Your task to perform on an android device: Search for "logitech g933" on ebay, select the first entry, add it to the cart, then select checkout. Image 0: 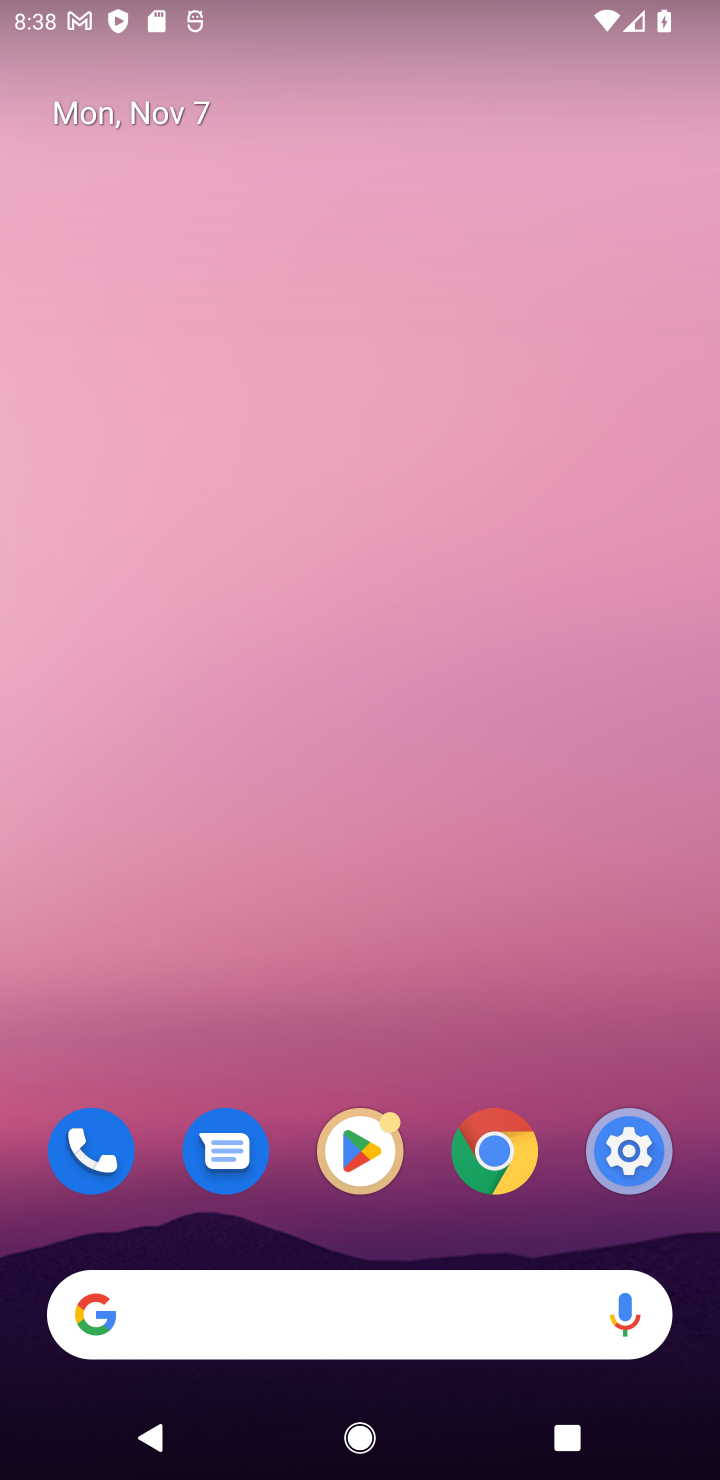
Step 0: click (485, 1160)
Your task to perform on an android device: Search for "logitech g933" on ebay, select the first entry, add it to the cart, then select checkout. Image 1: 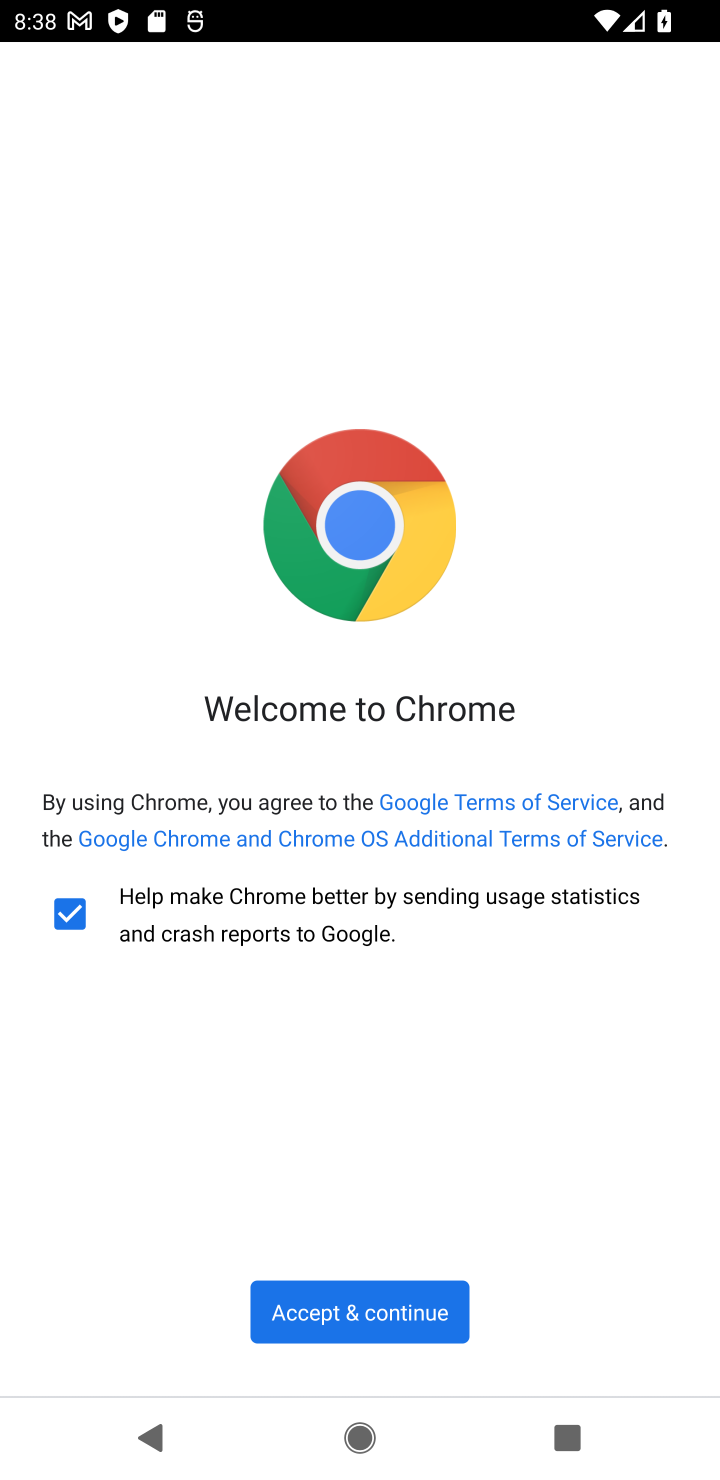
Step 1: click (352, 1318)
Your task to perform on an android device: Search for "logitech g933" on ebay, select the first entry, add it to the cart, then select checkout. Image 2: 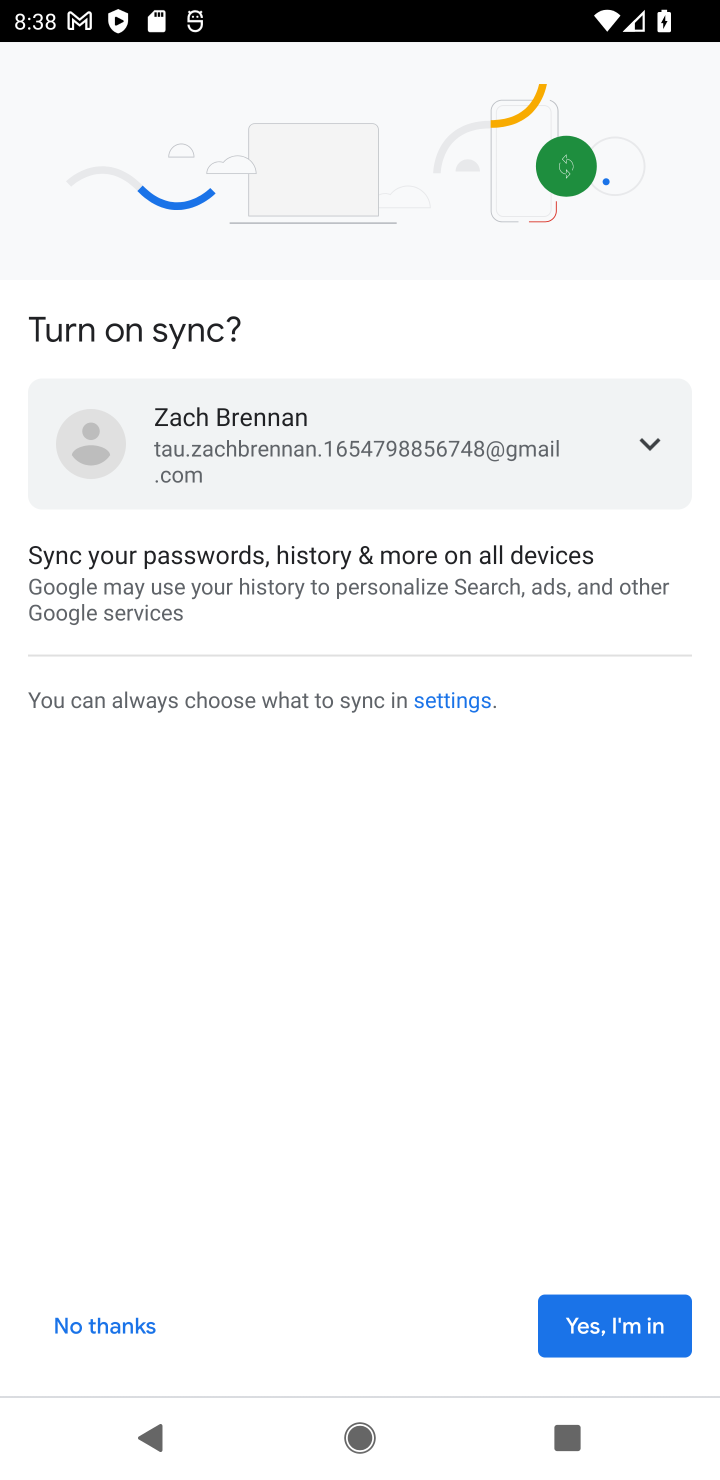
Step 2: click (558, 1329)
Your task to perform on an android device: Search for "logitech g933" on ebay, select the first entry, add it to the cart, then select checkout. Image 3: 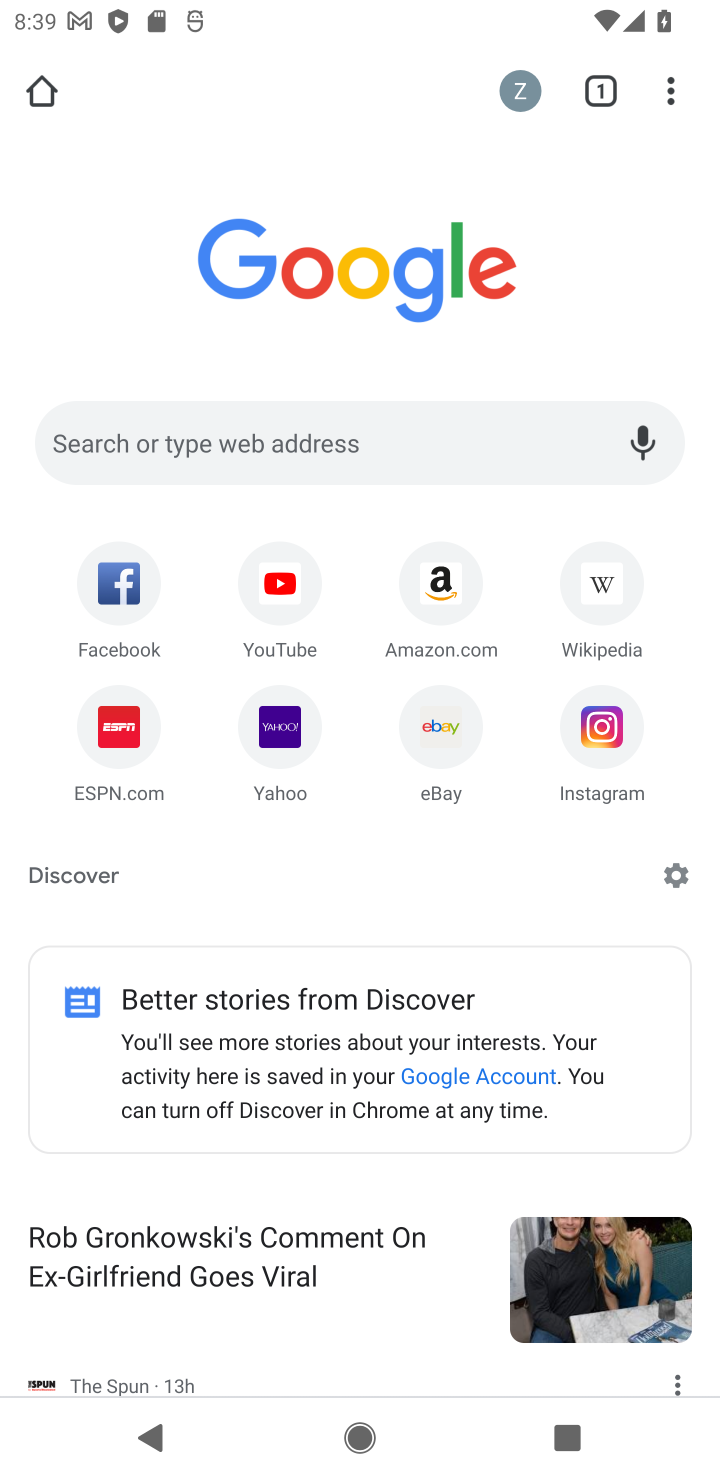
Step 3: click (271, 450)
Your task to perform on an android device: Search for "logitech g933" on ebay, select the first entry, add it to the cart, then select checkout. Image 4: 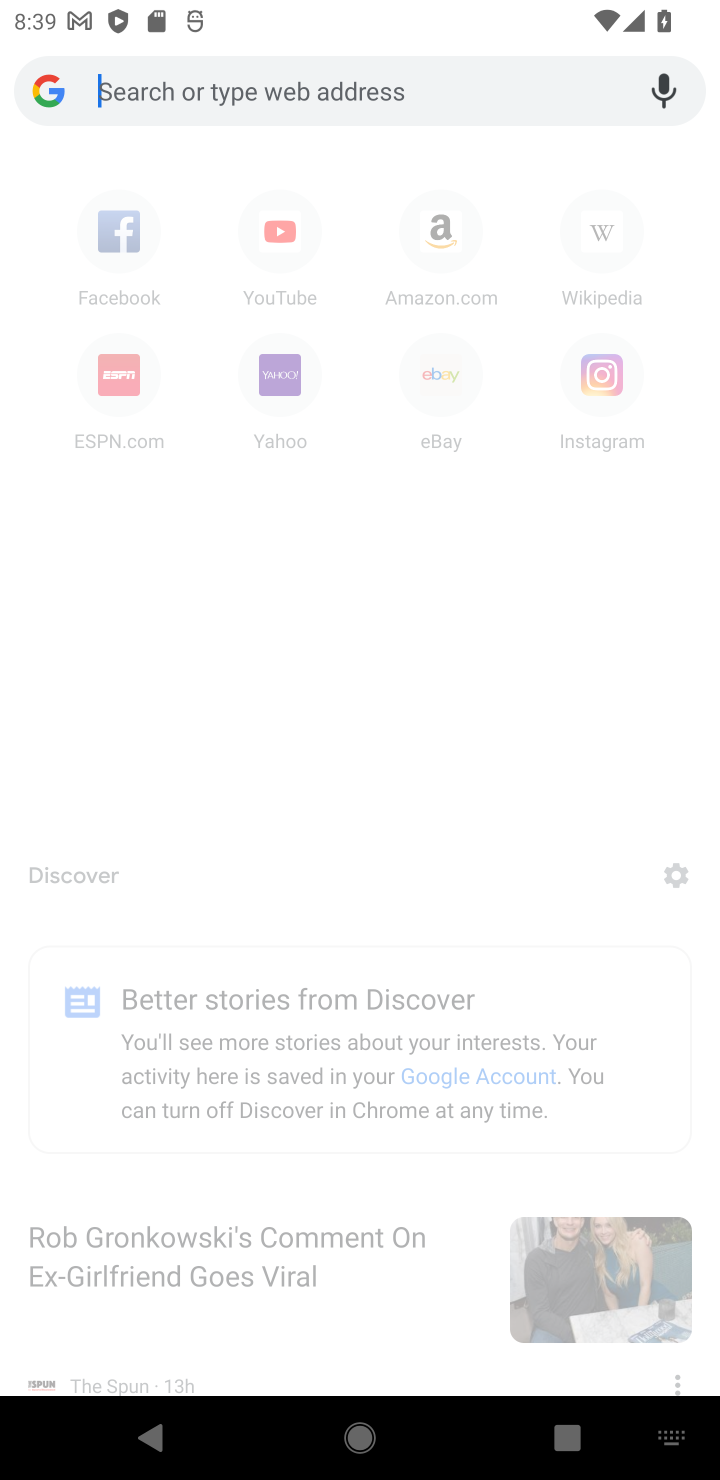
Step 4: click (224, 83)
Your task to perform on an android device: Search for "logitech g933" on ebay, select the first entry, add it to the cart, then select checkout. Image 5: 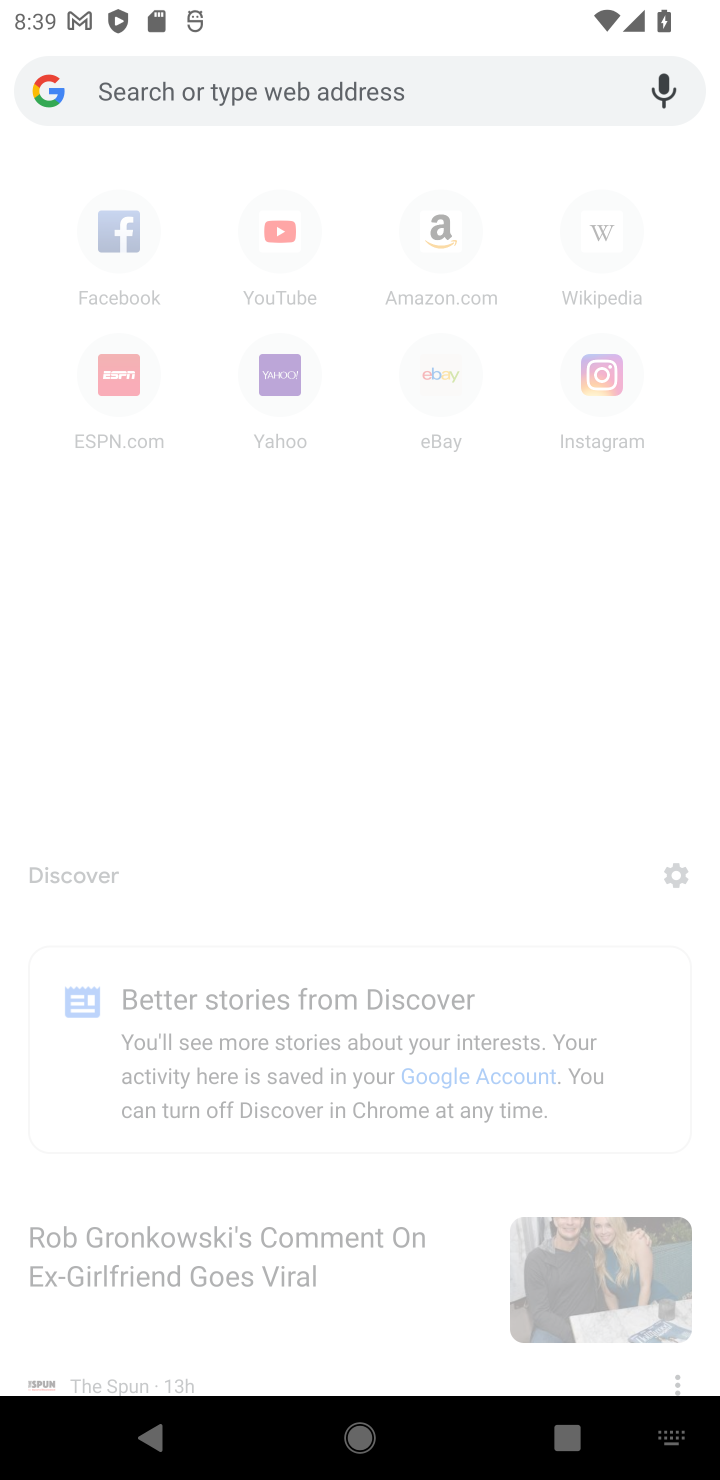
Step 5: type " ebay"
Your task to perform on an android device: Search for "logitech g933" on ebay, select the first entry, add it to the cart, then select checkout. Image 6: 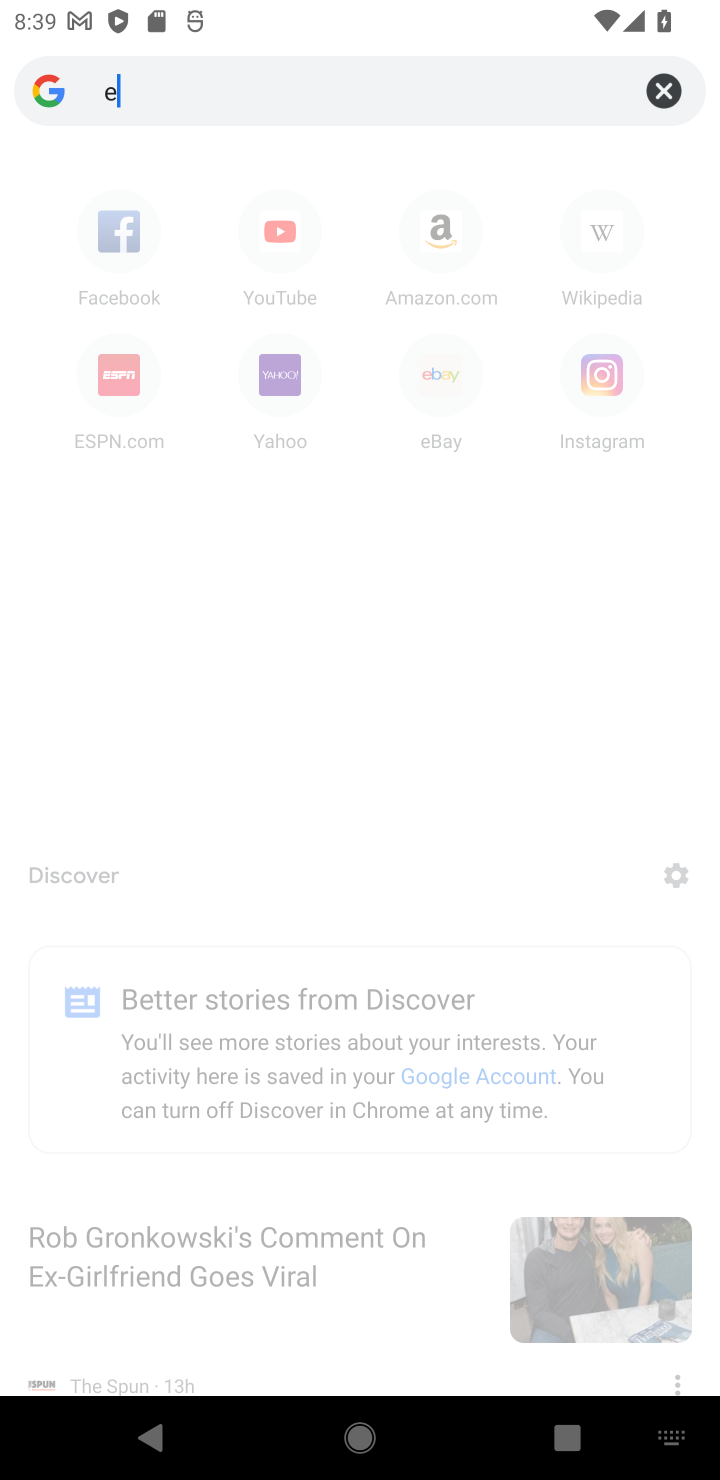
Step 6: press enter
Your task to perform on an android device: Search for "logitech g933" on ebay, select the first entry, add it to the cart, then select checkout. Image 7: 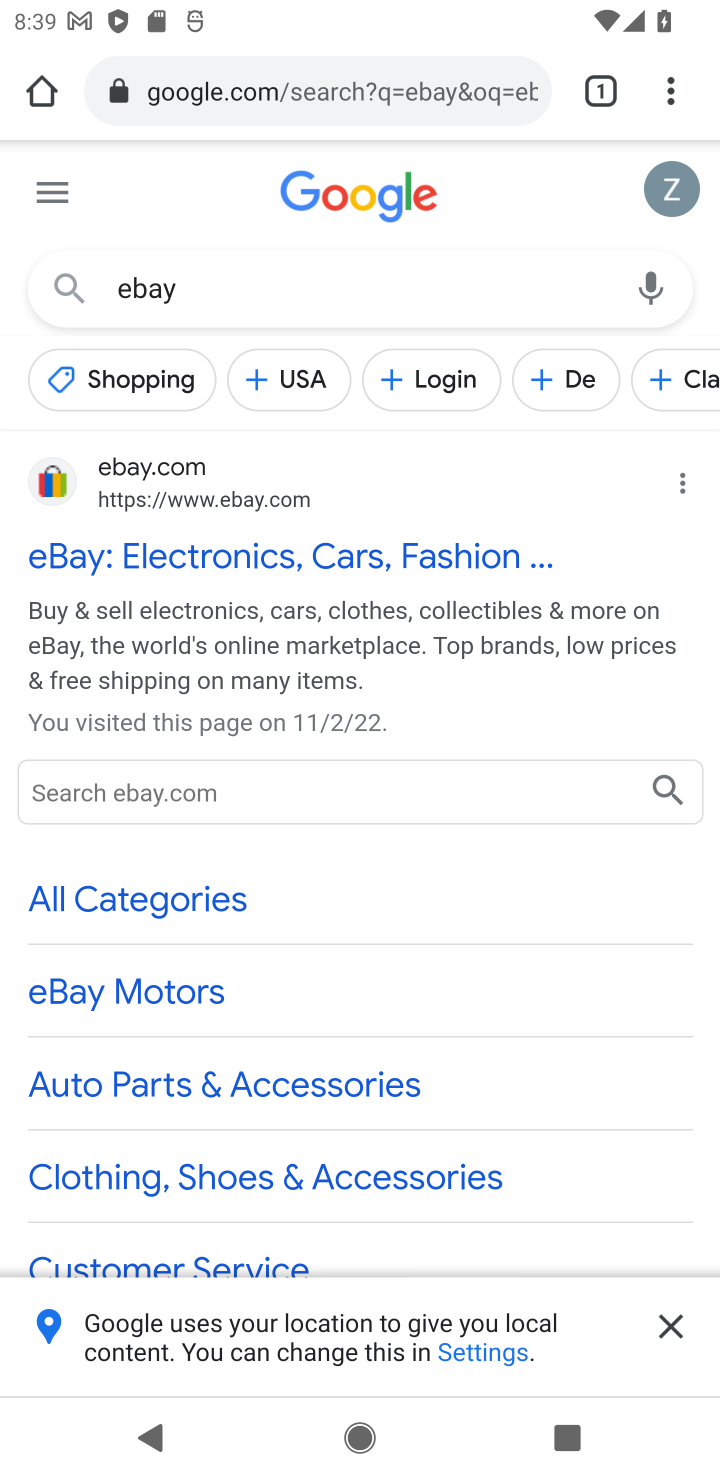
Step 7: click (252, 566)
Your task to perform on an android device: Search for "logitech g933" on ebay, select the first entry, add it to the cart, then select checkout. Image 8: 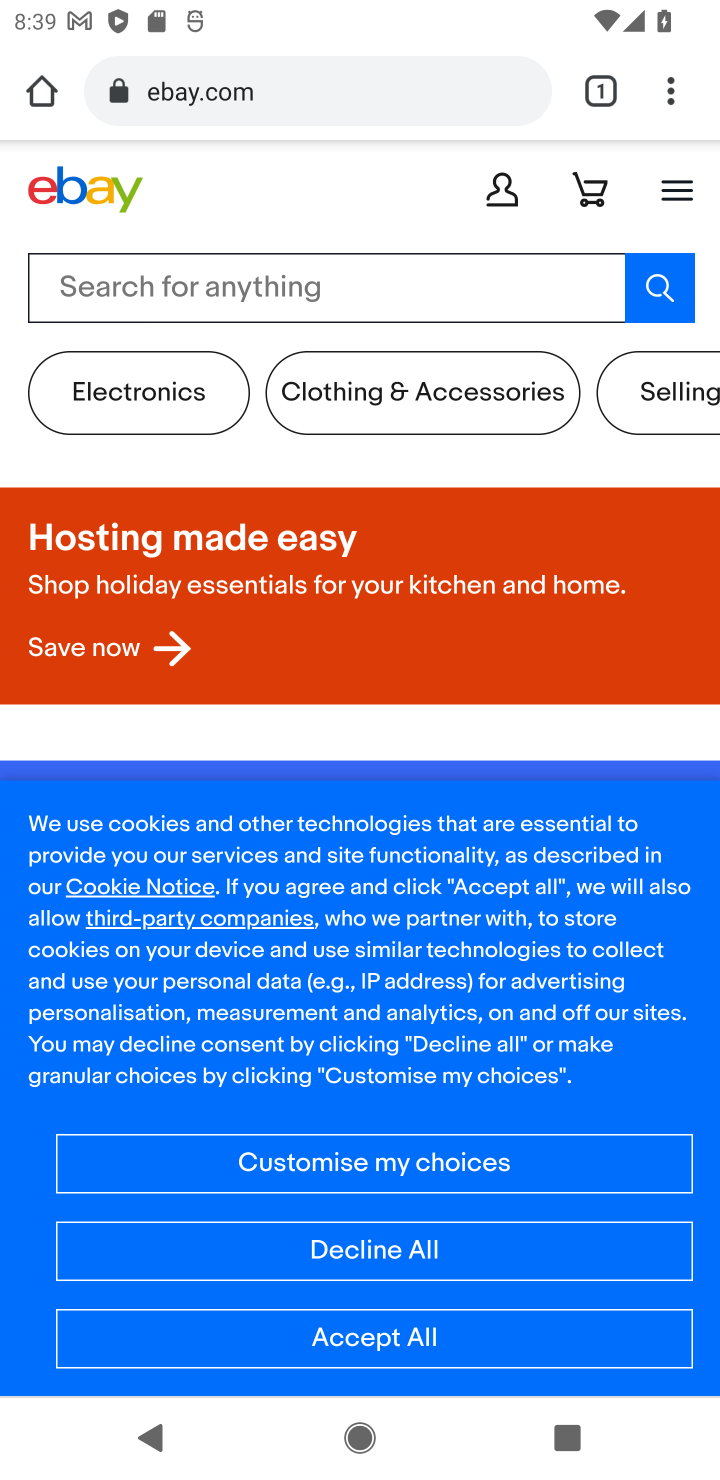
Step 8: click (270, 279)
Your task to perform on an android device: Search for "logitech g933" on ebay, select the first entry, add it to the cart, then select checkout. Image 9: 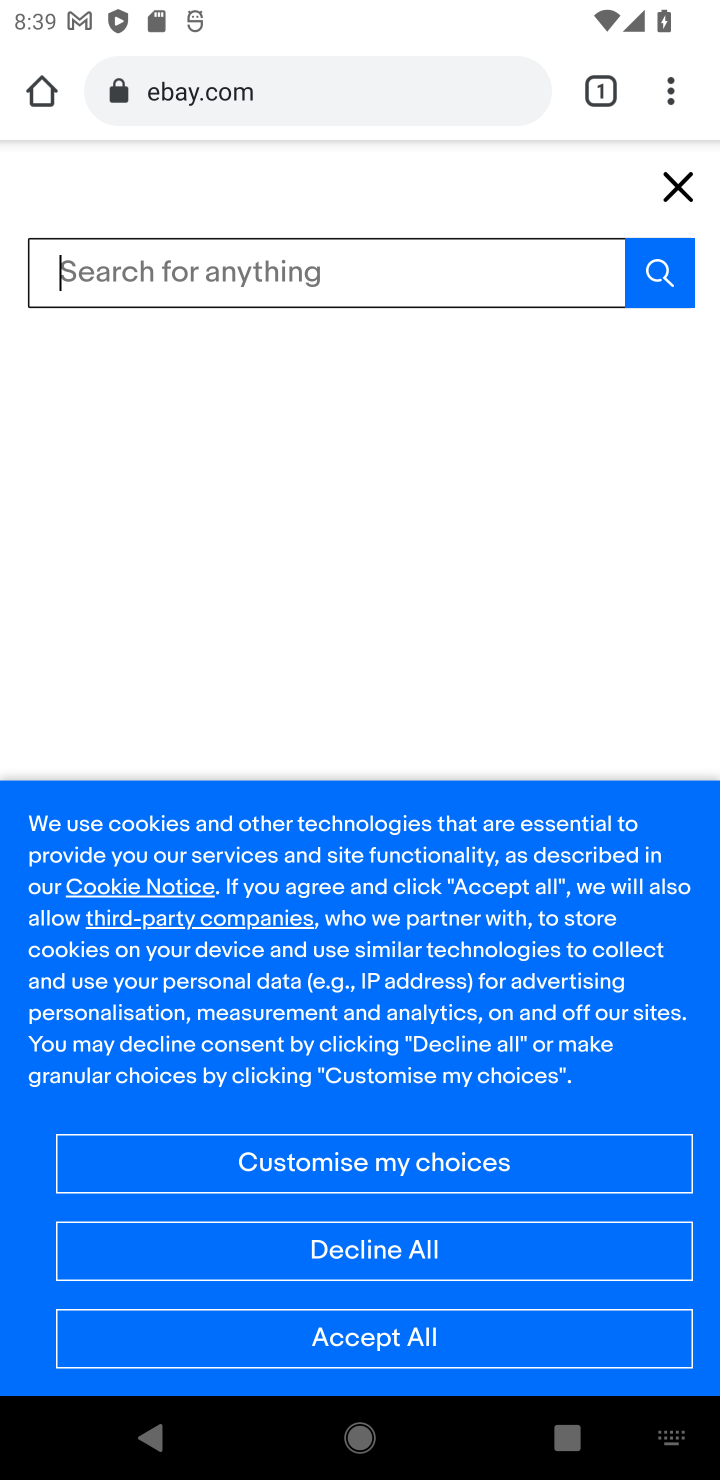
Step 9: click (435, 1351)
Your task to perform on an android device: Search for "logitech g933" on ebay, select the first entry, add it to the cart, then select checkout. Image 10: 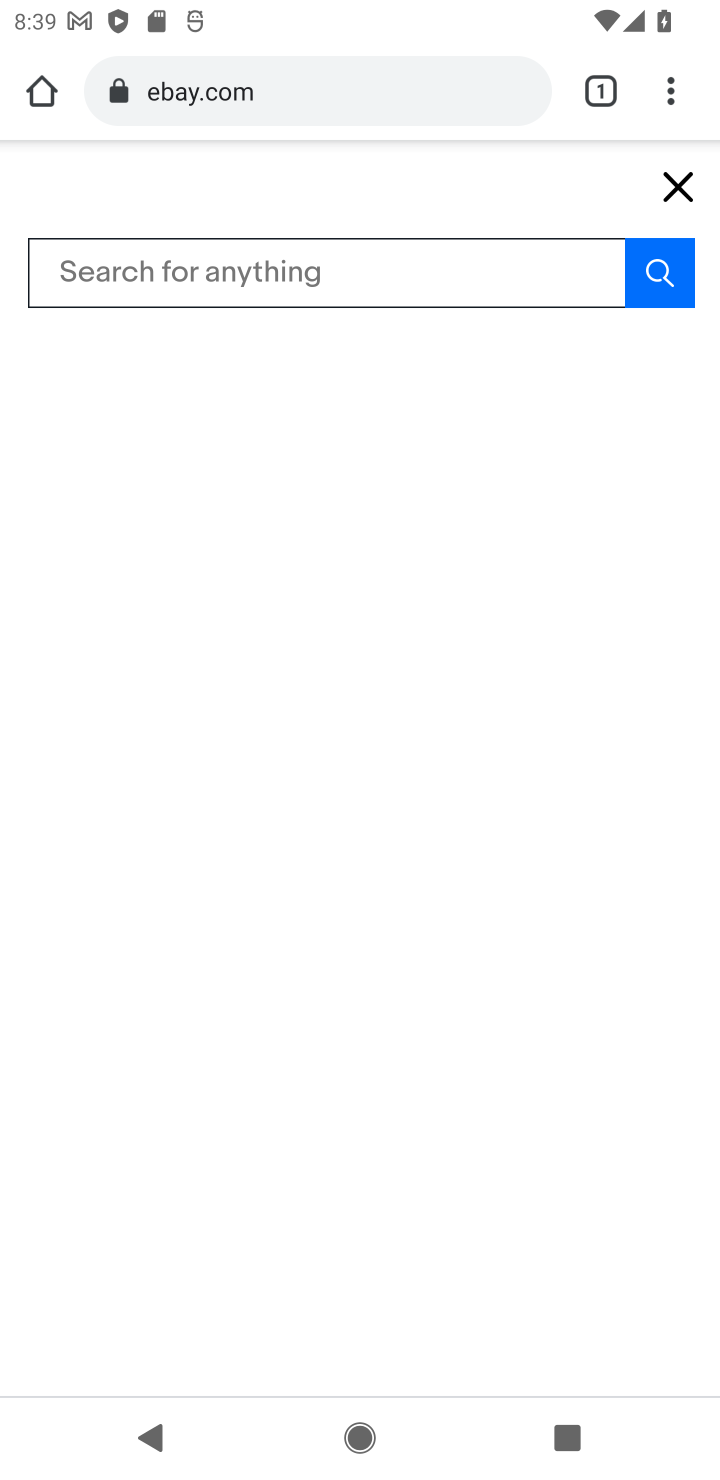
Step 10: click (260, 258)
Your task to perform on an android device: Search for "logitech g933" on ebay, select the first entry, add it to the cart, then select checkout. Image 11: 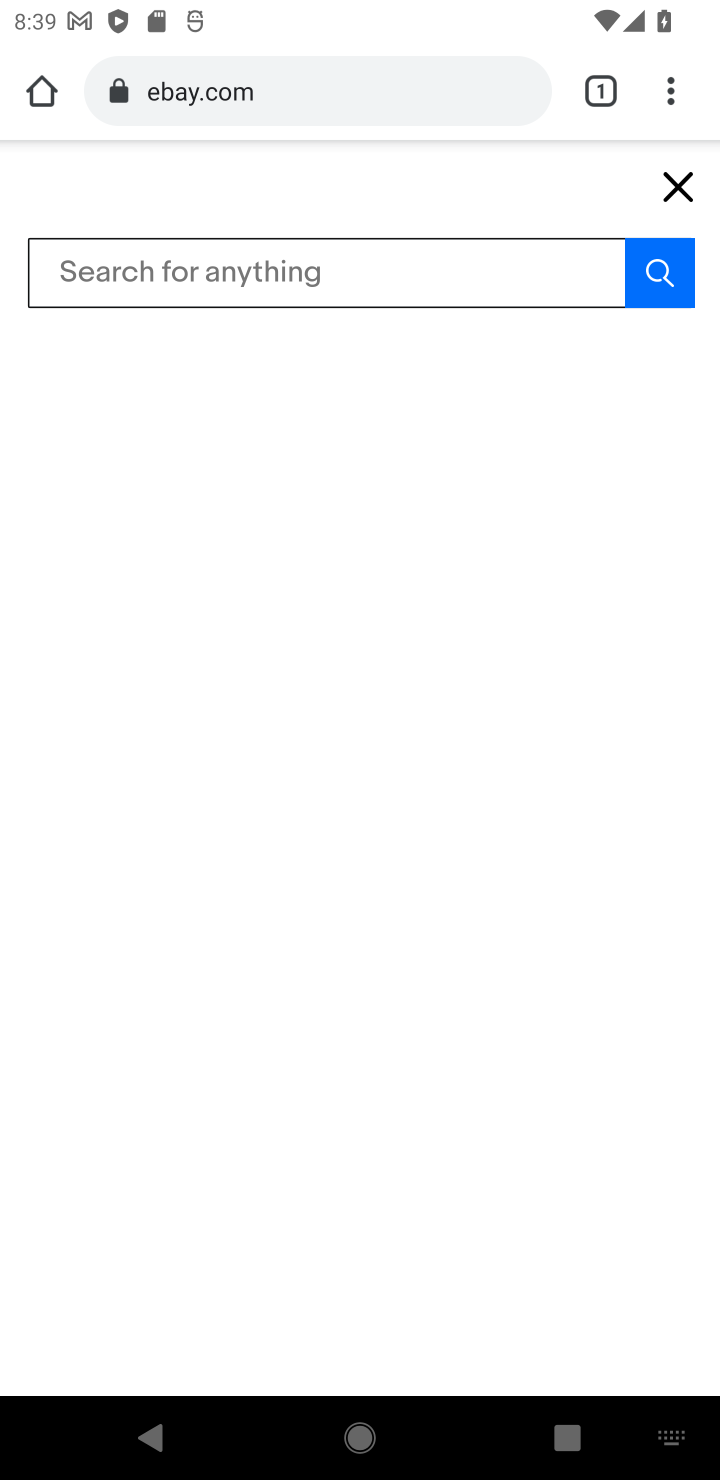
Step 11: type "logitech g933"
Your task to perform on an android device: Search for "logitech g933" on ebay, select the first entry, add it to the cart, then select checkout. Image 12: 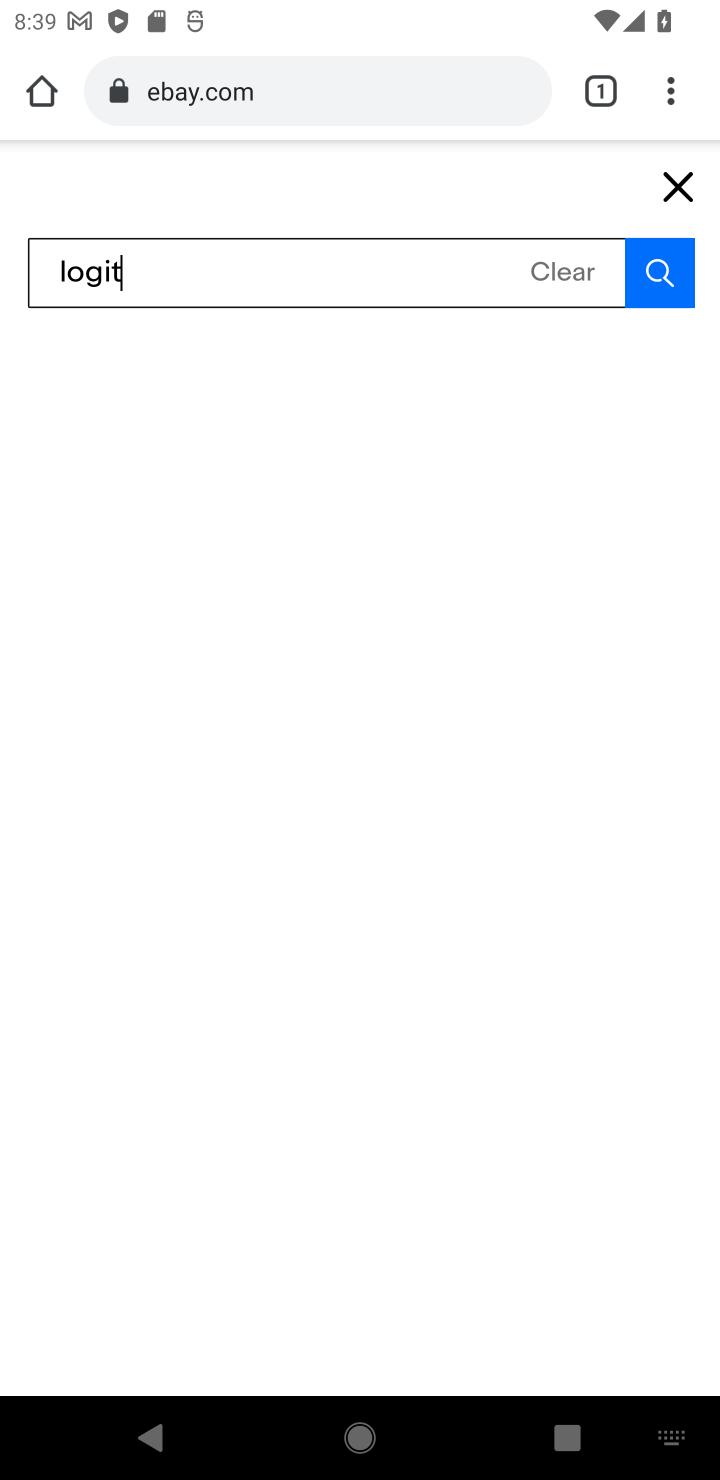
Step 12: press enter
Your task to perform on an android device: Search for "logitech g933" on ebay, select the first entry, add it to the cart, then select checkout. Image 13: 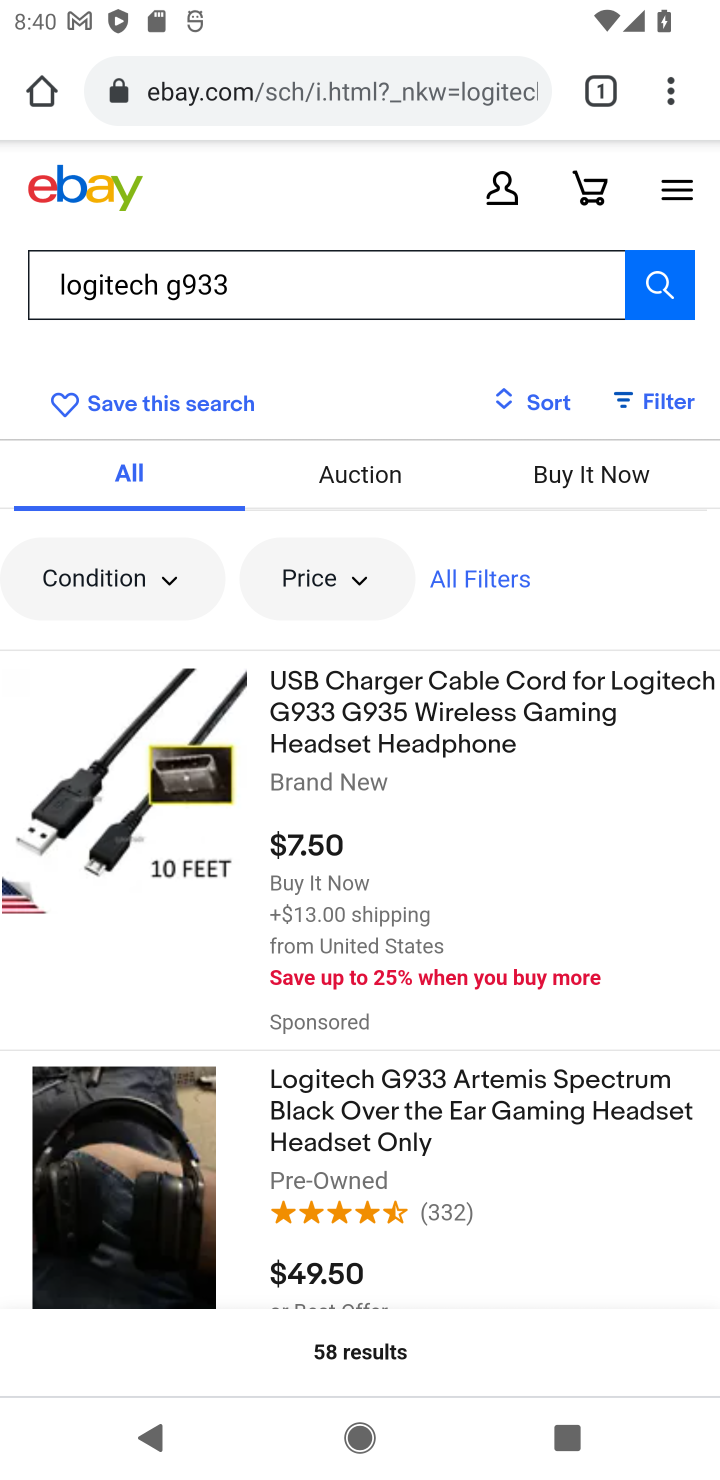
Step 13: click (384, 737)
Your task to perform on an android device: Search for "logitech g933" on ebay, select the first entry, add it to the cart, then select checkout. Image 14: 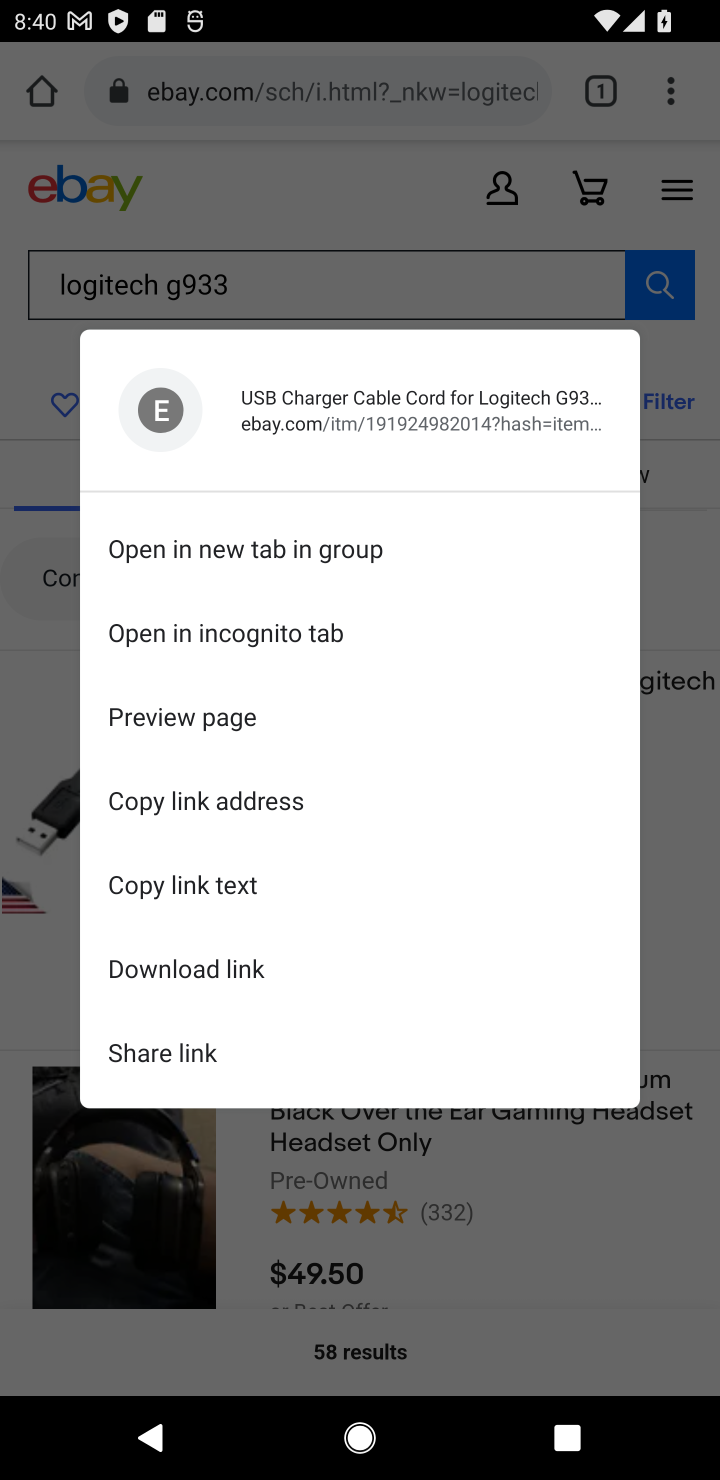
Step 14: click (674, 761)
Your task to perform on an android device: Search for "logitech g933" on ebay, select the first entry, add it to the cart, then select checkout. Image 15: 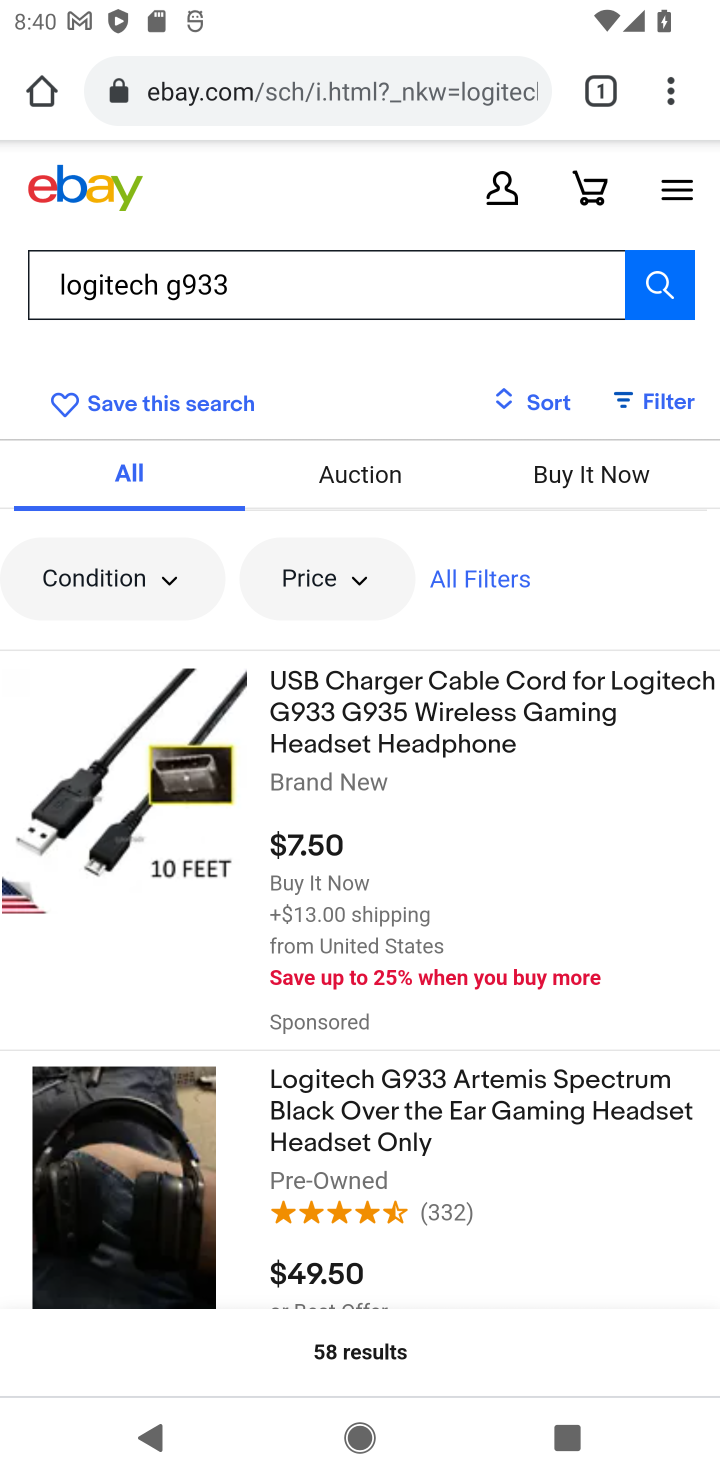
Step 15: click (410, 674)
Your task to perform on an android device: Search for "logitech g933" on ebay, select the first entry, add it to the cart, then select checkout. Image 16: 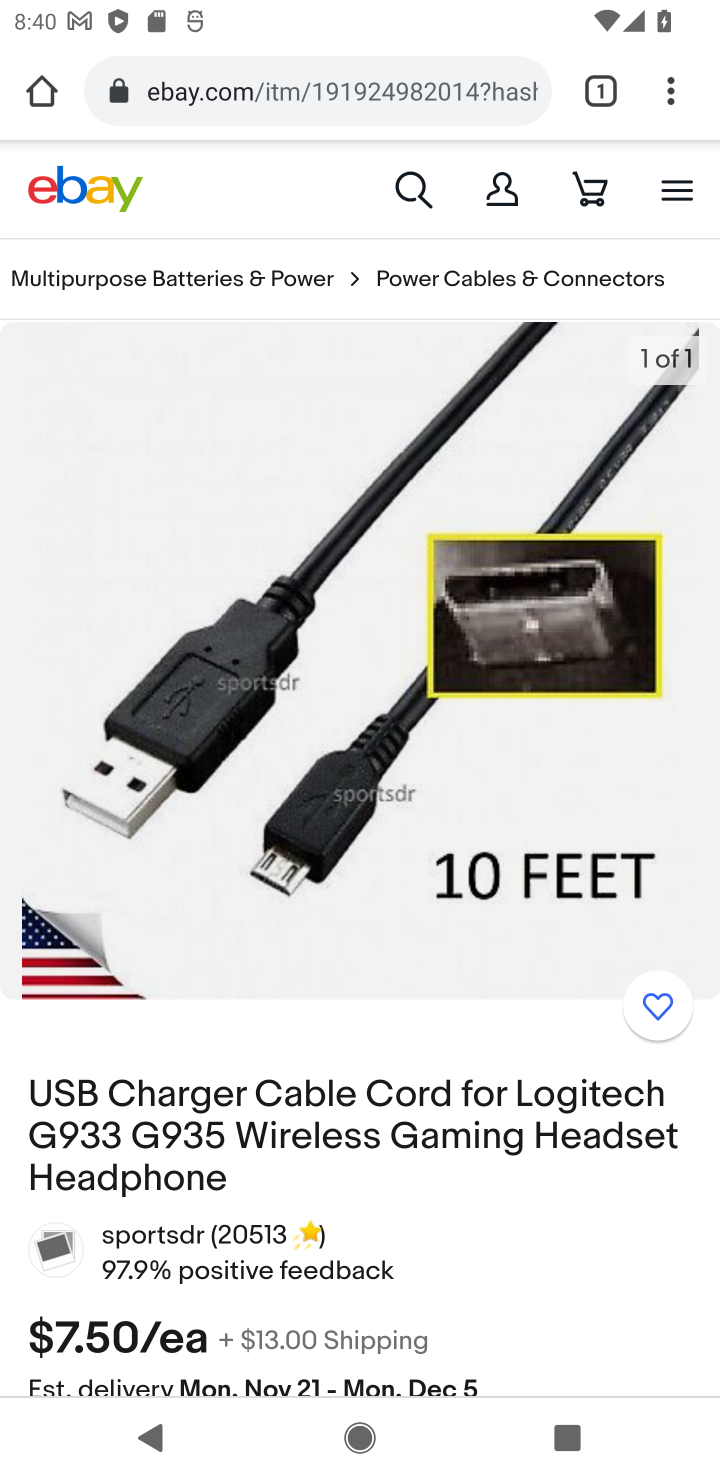
Step 16: drag from (323, 1211) to (719, 460)
Your task to perform on an android device: Search for "logitech g933" on ebay, select the first entry, add it to the cart, then select checkout. Image 17: 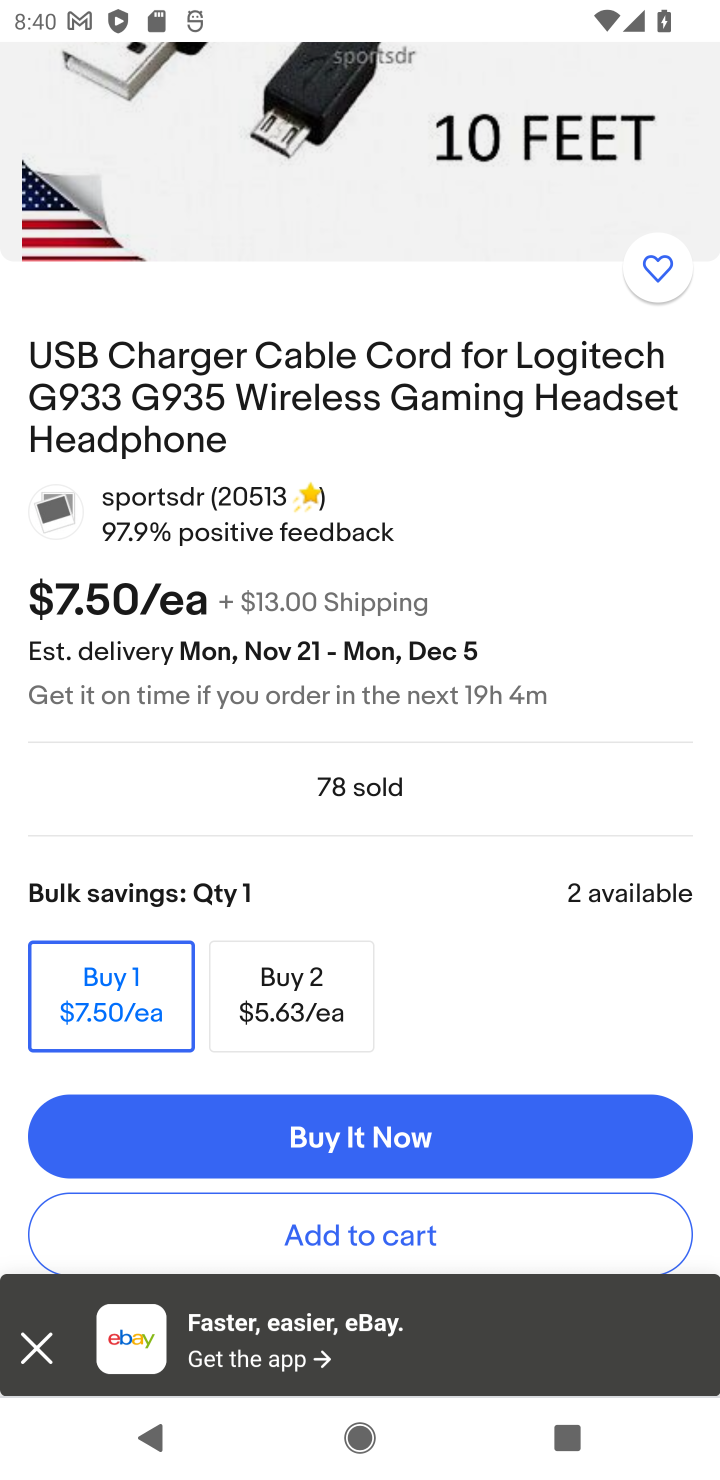
Step 17: click (346, 1230)
Your task to perform on an android device: Search for "logitech g933" on ebay, select the first entry, add it to the cart, then select checkout. Image 18: 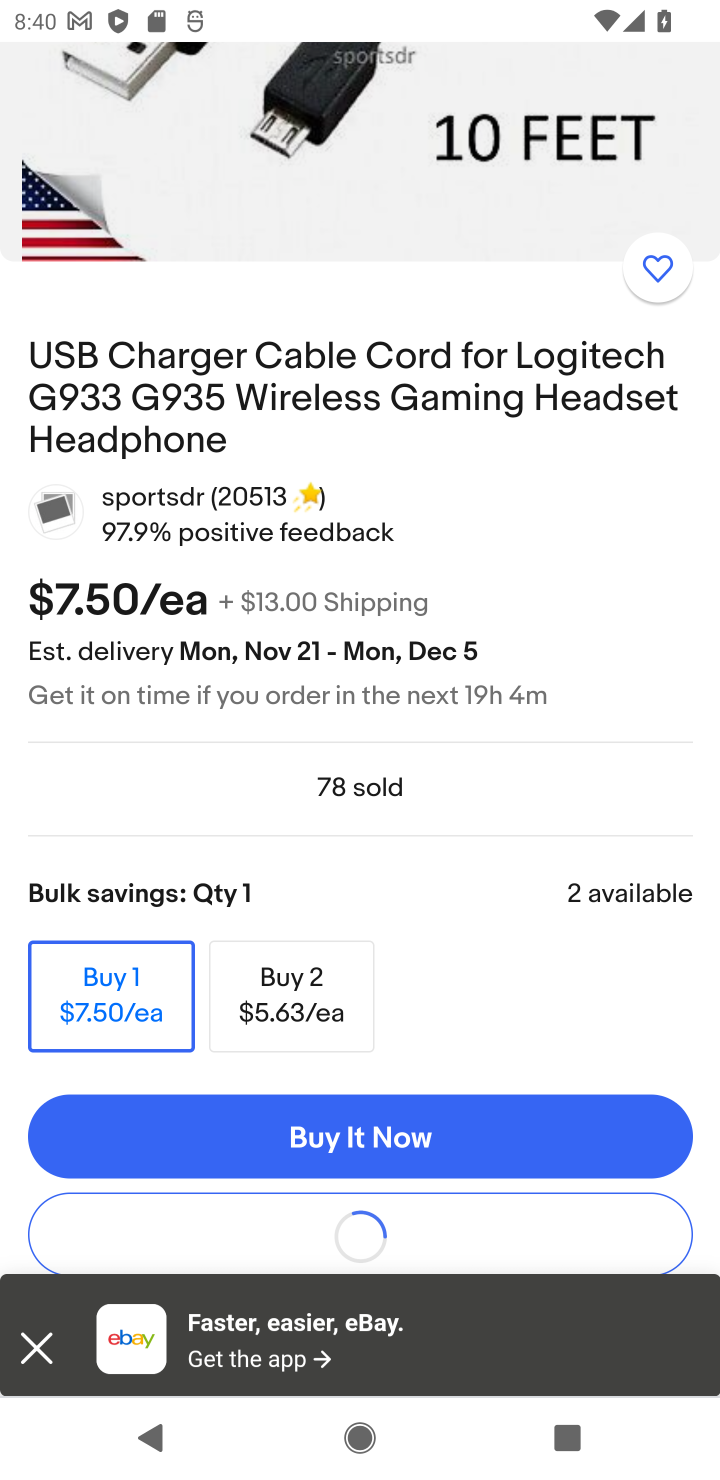
Step 18: drag from (452, 1039) to (717, 354)
Your task to perform on an android device: Search for "logitech g933" on ebay, select the first entry, add it to the cart, then select checkout. Image 19: 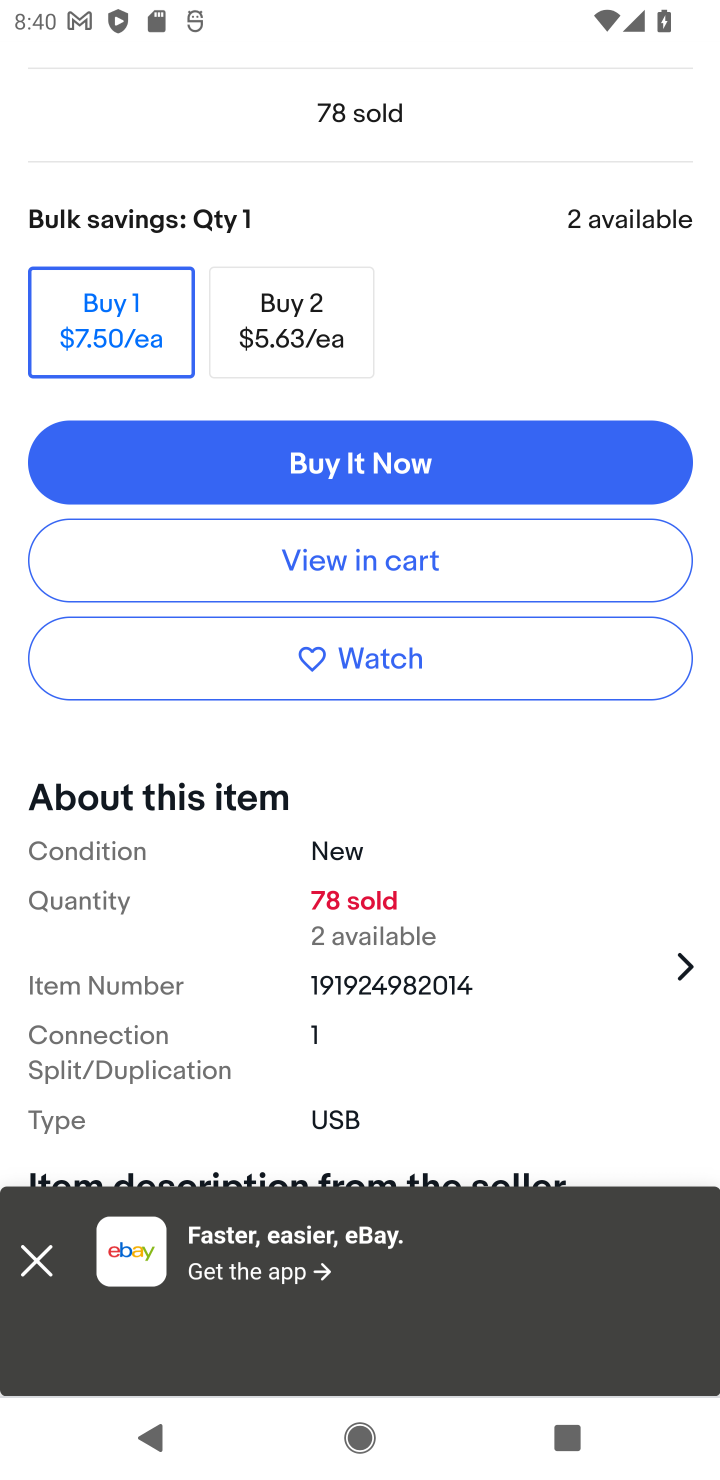
Step 19: click (366, 559)
Your task to perform on an android device: Search for "logitech g933" on ebay, select the first entry, add it to the cart, then select checkout. Image 20: 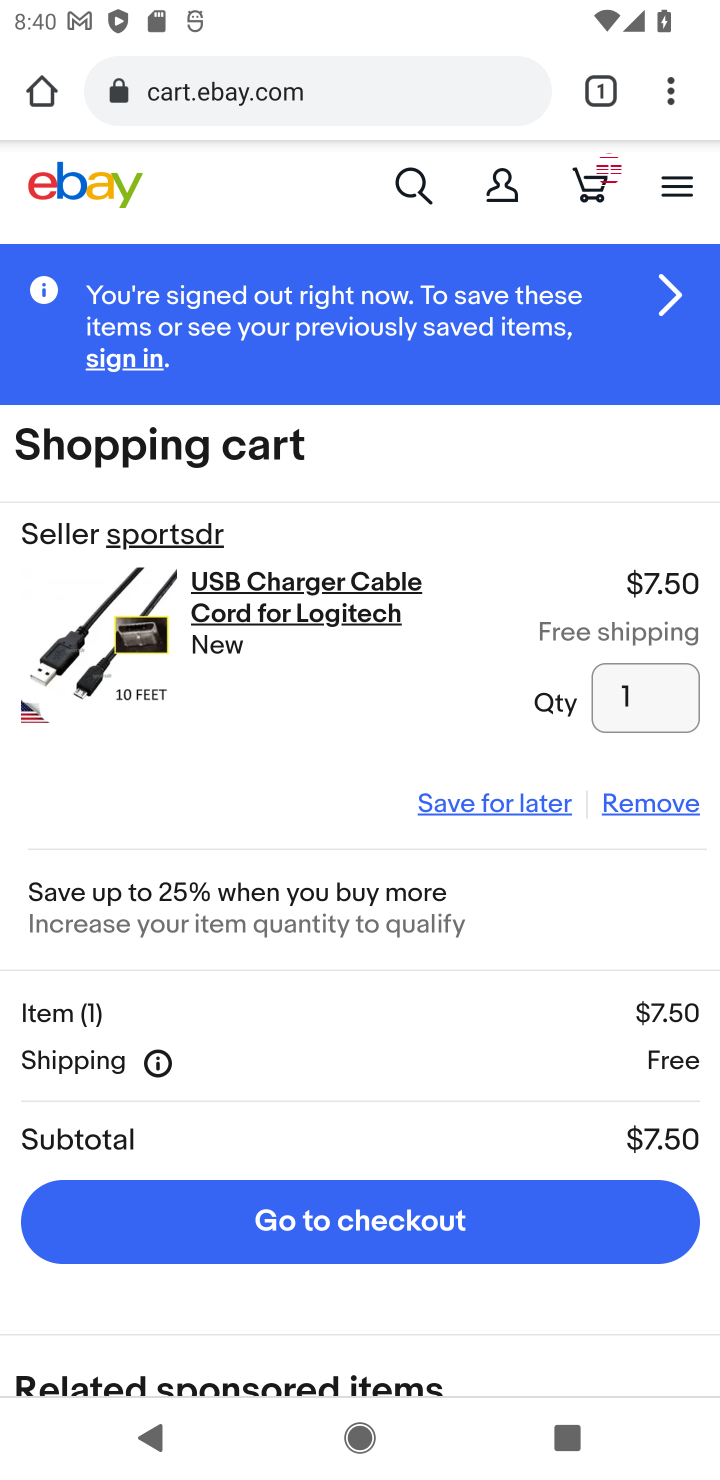
Step 20: click (351, 1207)
Your task to perform on an android device: Search for "logitech g933" on ebay, select the first entry, add it to the cart, then select checkout. Image 21: 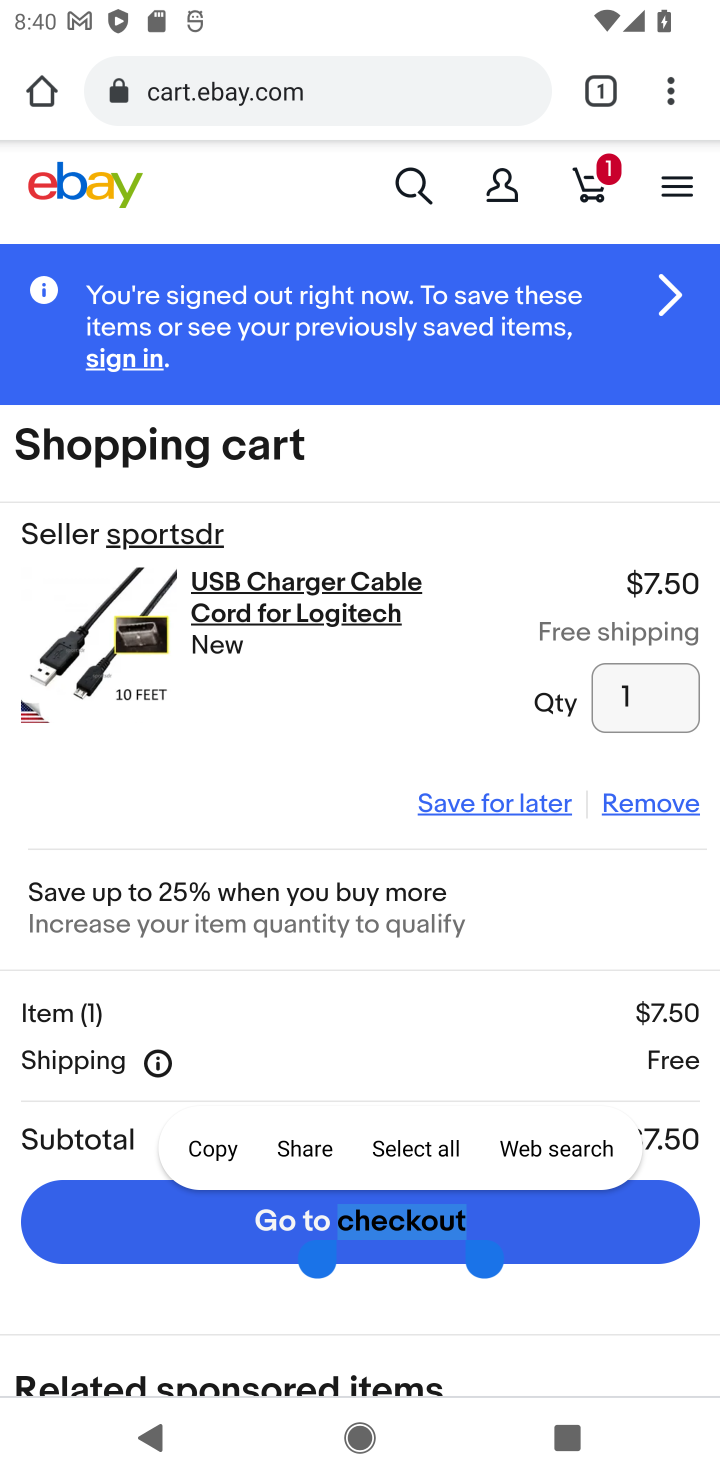
Step 21: click (353, 1216)
Your task to perform on an android device: Search for "logitech g933" on ebay, select the first entry, add it to the cart, then select checkout. Image 22: 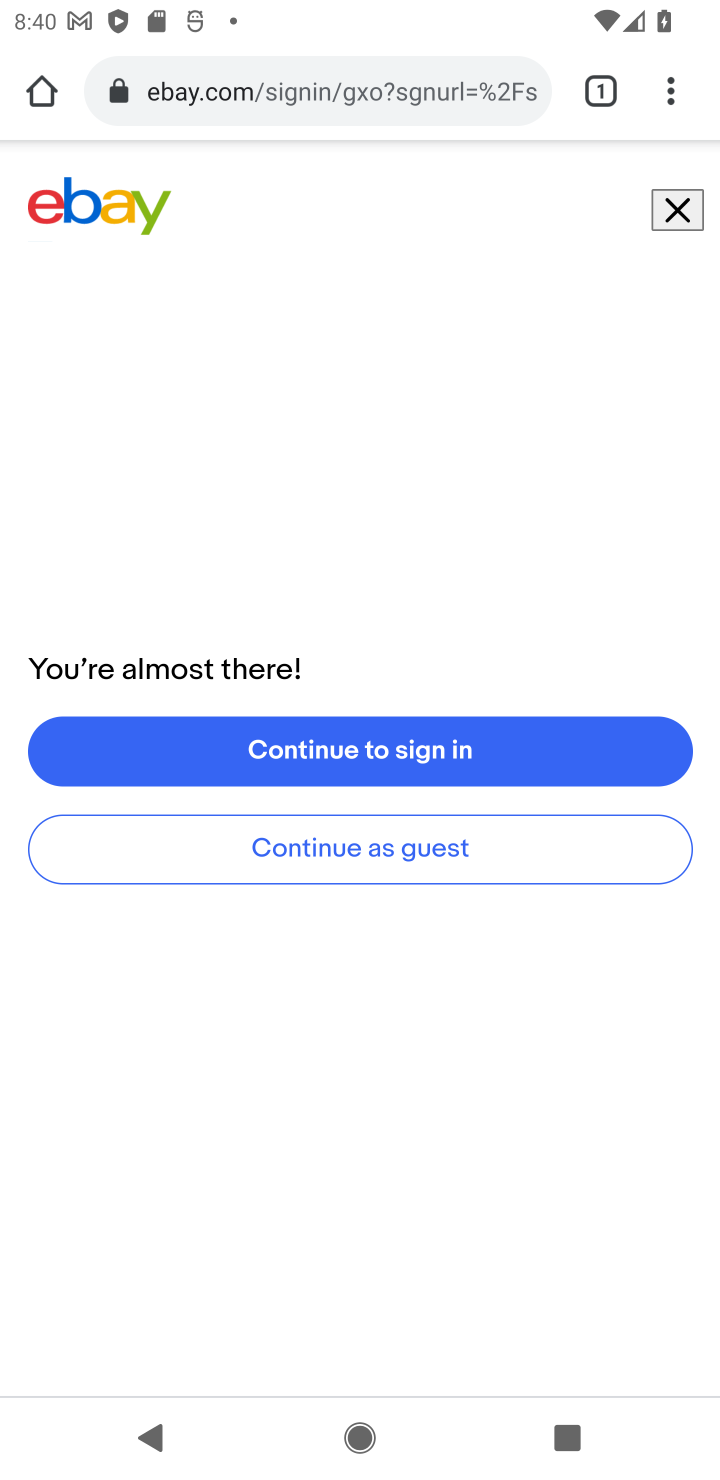
Step 22: task complete